Your task to perform on an android device: Turn off the flashlight Image 0: 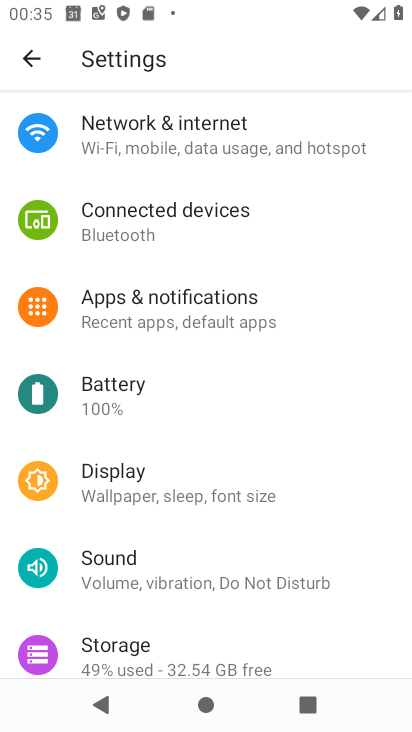
Step 0: click (152, 478)
Your task to perform on an android device: Turn off the flashlight Image 1: 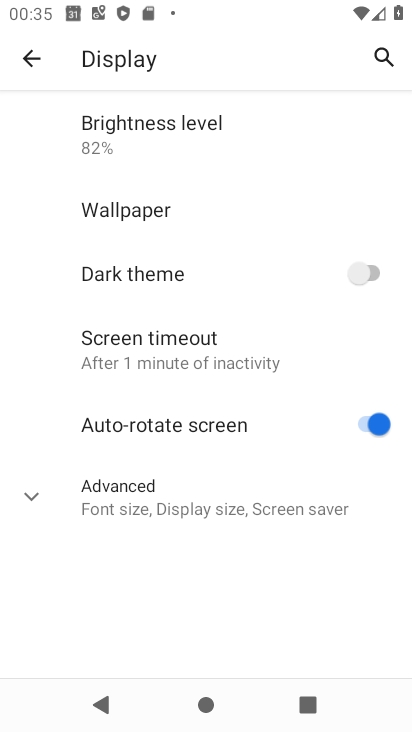
Step 1: task complete